Your task to perform on an android device: Open settings on Google Maps Image 0: 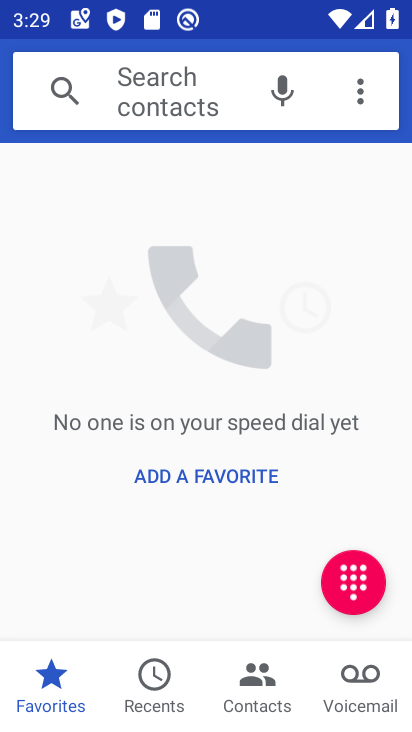
Step 0: press home button
Your task to perform on an android device: Open settings on Google Maps Image 1: 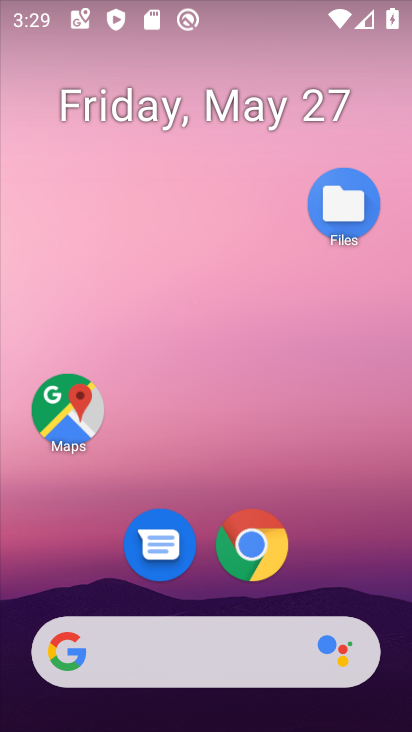
Step 1: click (63, 418)
Your task to perform on an android device: Open settings on Google Maps Image 2: 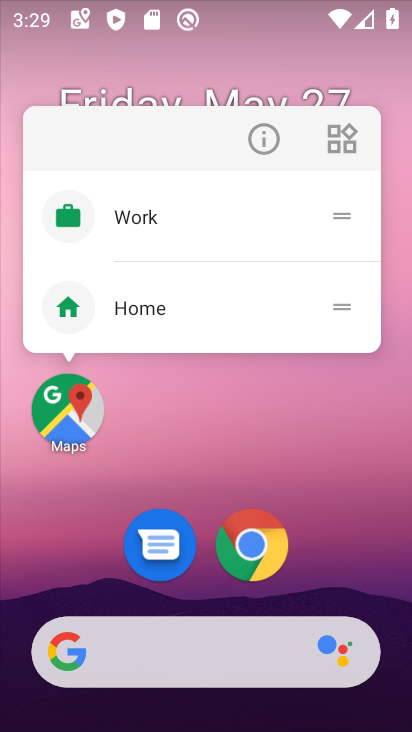
Step 2: click (73, 419)
Your task to perform on an android device: Open settings on Google Maps Image 3: 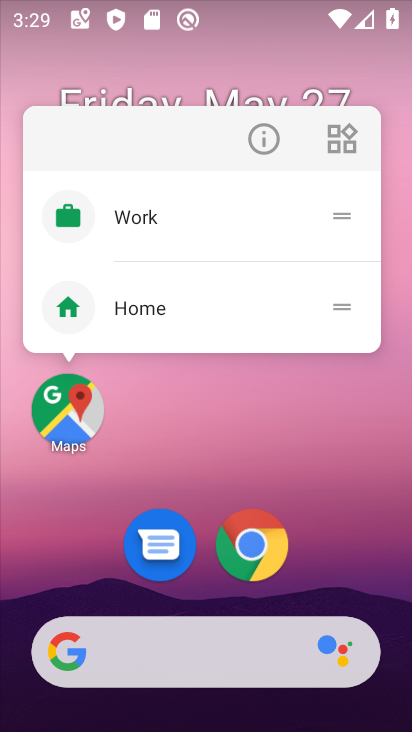
Step 3: click (67, 419)
Your task to perform on an android device: Open settings on Google Maps Image 4: 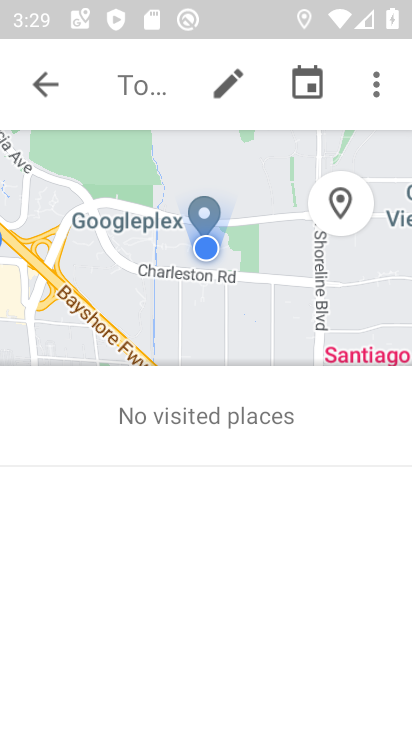
Step 4: click (52, 88)
Your task to perform on an android device: Open settings on Google Maps Image 5: 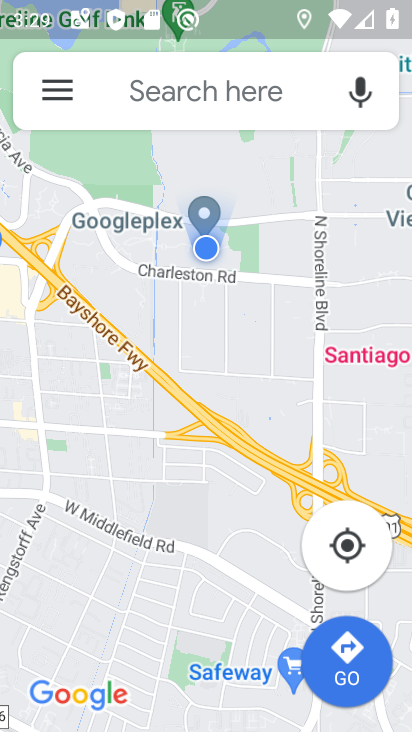
Step 5: click (52, 88)
Your task to perform on an android device: Open settings on Google Maps Image 6: 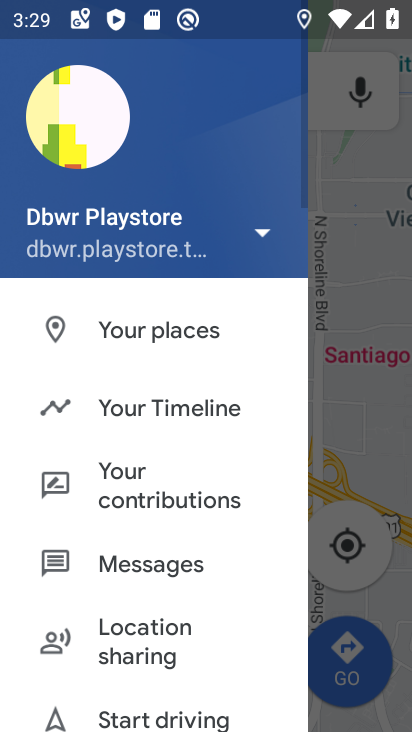
Step 6: drag from (217, 643) to (304, 67)
Your task to perform on an android device: Open settings on Google Maps Image 7: 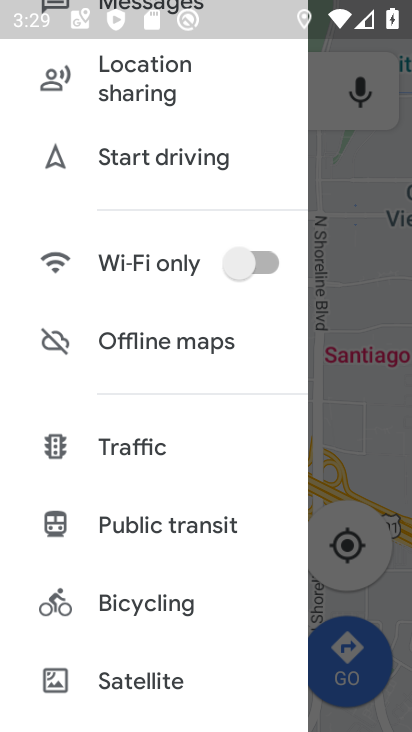
Step 7: drag from (171, 635) to (255, 166)
Your task to perform on an android device: Open settings on Google Maps Image 8: 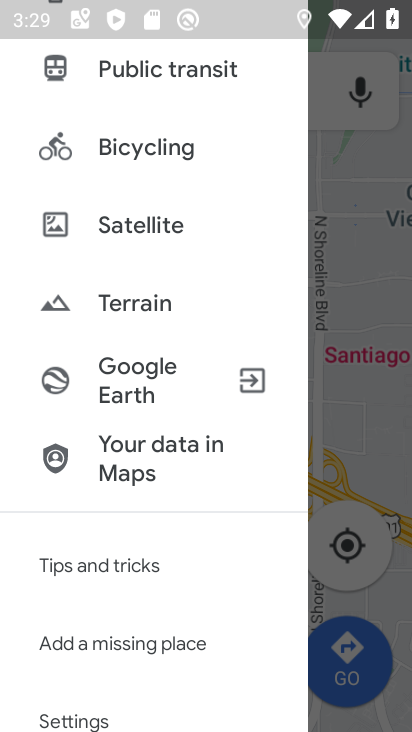
Step 8: drag from (150, 604) to (262, 196)
Your task to perform on an android device: Open settings on Google Maps Image 9: 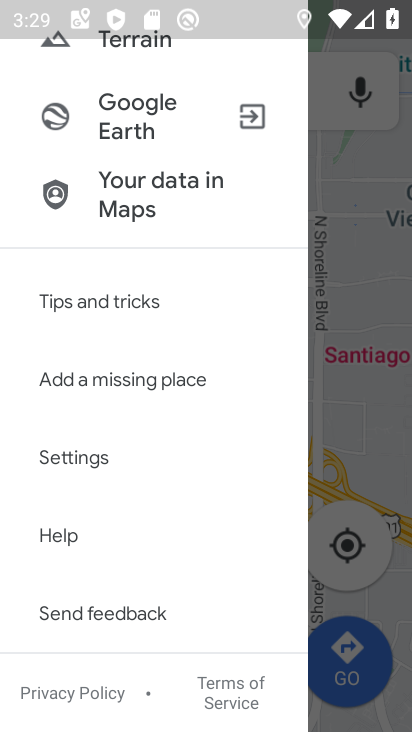
Step 9: click (78, 458)
Your task to perform on an android device: Open settings on Google Maps Image 10: 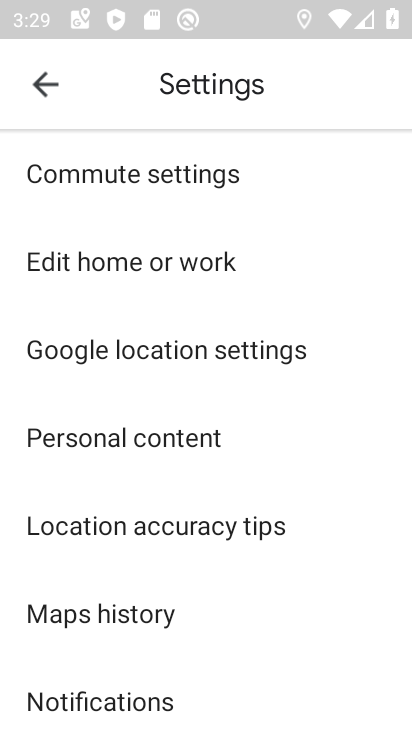
Step 10: task complete